Your task to perform on an android device: turn off improve location accuracy Image 0: 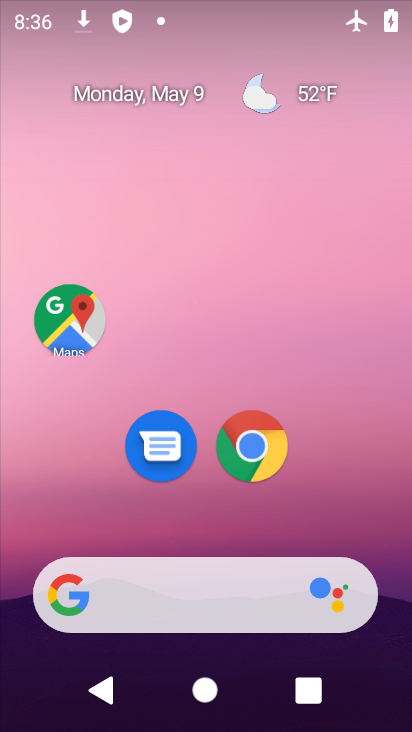
Step 0: drag from (384, 586) to (311, 104)
Your task to perform on an android device: turn off improve location accuracy Image 1: 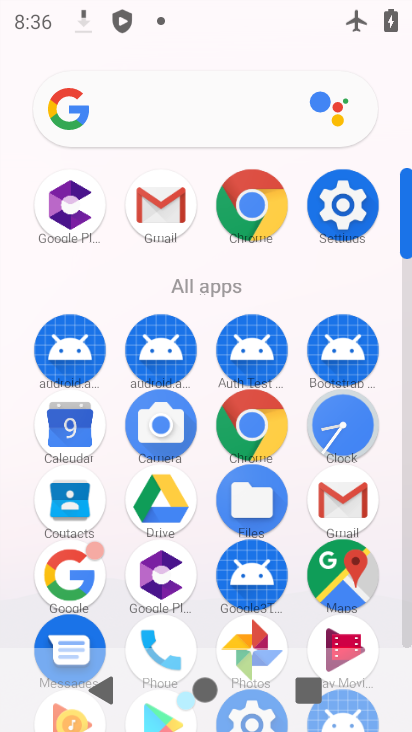
Step 1: click (408, 630)
Your task to perform on an android device: turn off improve location accuracy Image 2: 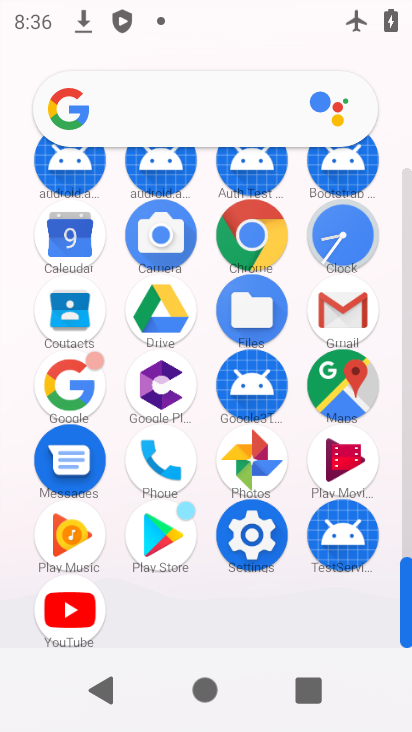
Step 2: click (249, 536)
Your task to perform on an android device: turn off improve location accuracy Image 3: 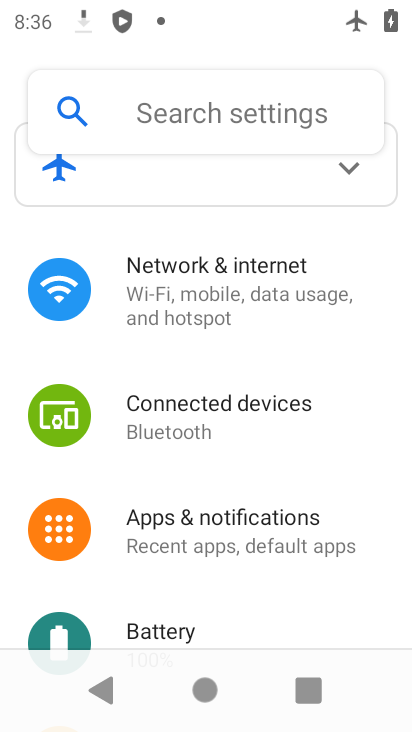
Step 3: drag from (367, 598) to (351, 107)
Your task to perform on an android device: turn off improve location accuracy Image 4: 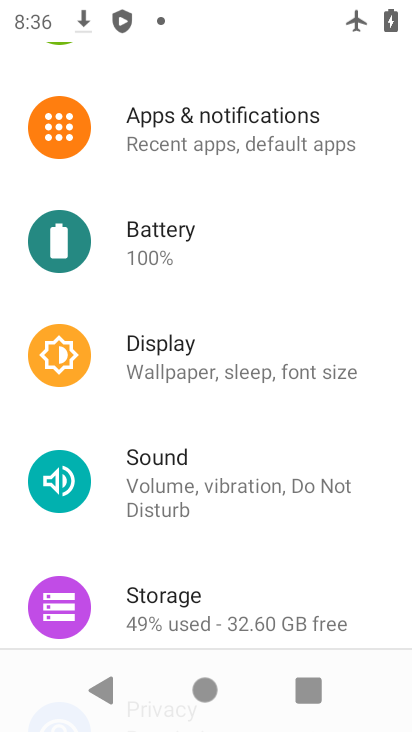
Step 4: drag from (320, 510) to (354, 145)
Your task to perform on an android device: turn off improve location accuracy Image 5: 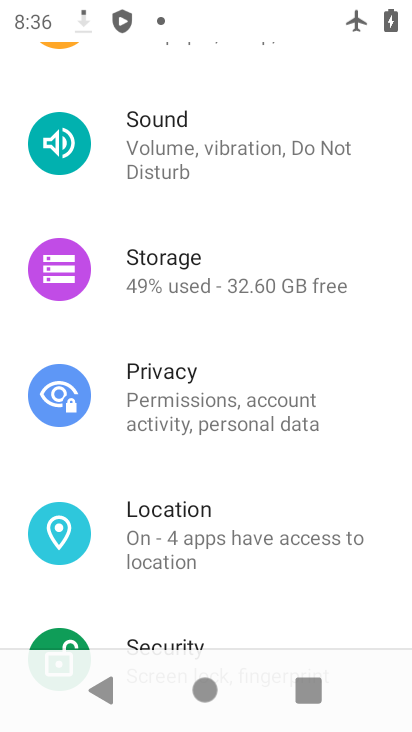
Step 5: click (164, 539)
Your task to perform on an android device: turn off improve location accuracy Image 6: 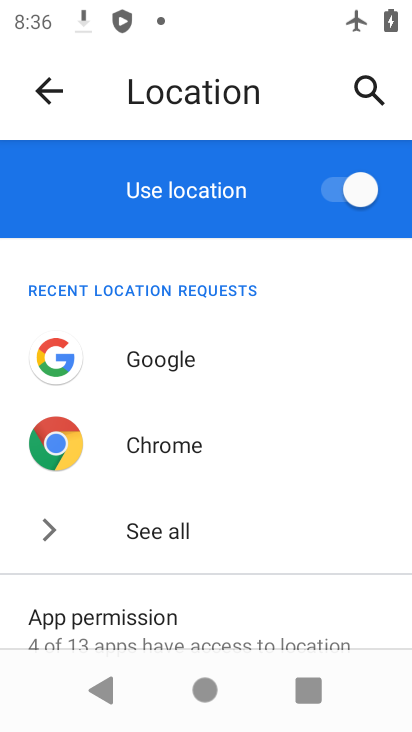
Step 6: drag from (291, 609) to (316, 128)
Your task to perform on an android device: turn off improve location accuracy Image 7: 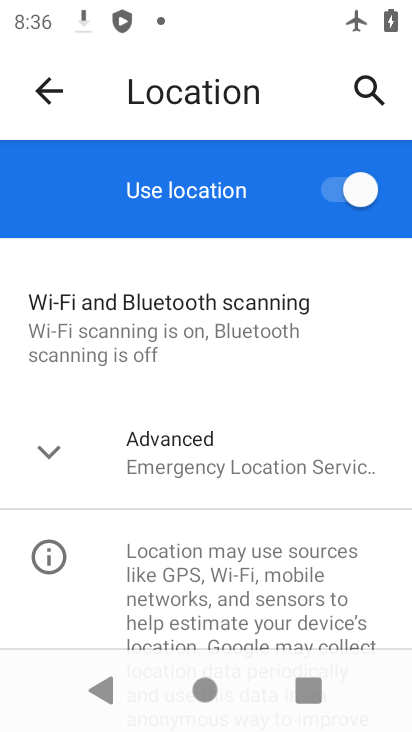
Step 7: click (43, 449)
Your task to perform on an android device: turn off improve location accuracy Image 8: 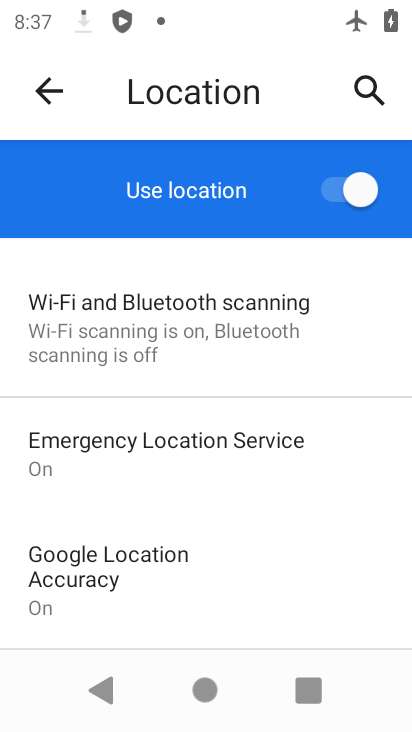
Step 8: click (51, 566)
Your task to perform on an android device: turn off improve location accuracy Image 9: 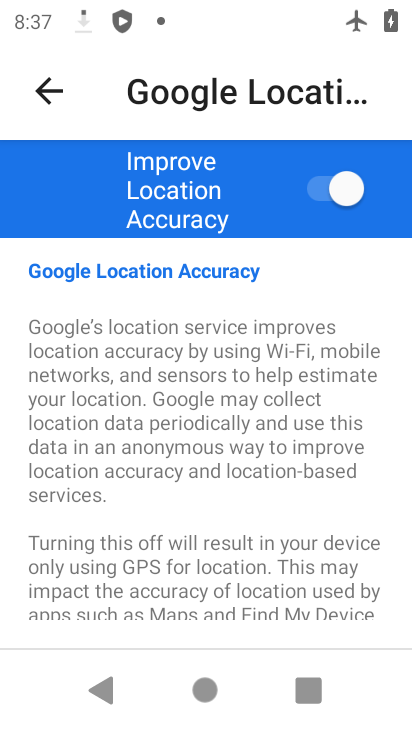
Step 9: click (320, 185)
Your task to perform on an android device: turn off improve location accuracy Image 10: 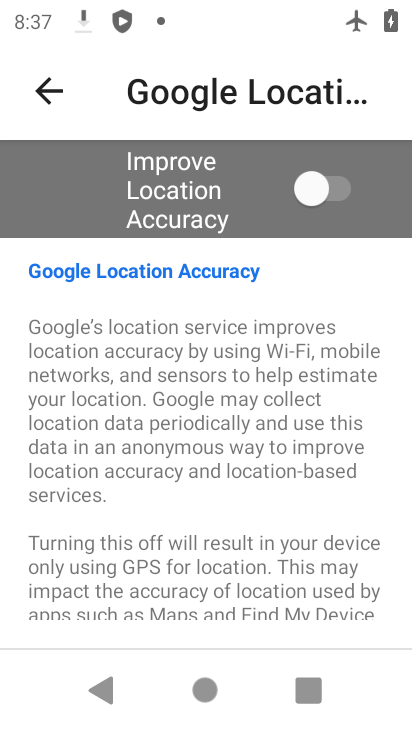
Step 10: task complete